Your task to perform on an android device: allow notifications from all sites in the chrome app Image 0: 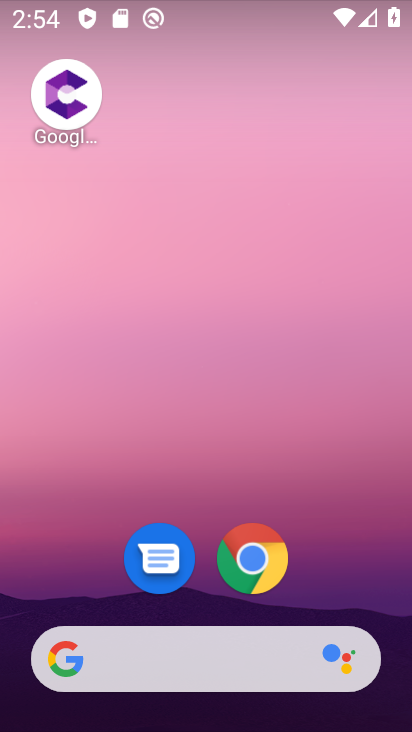
Step 0: click (258, 553)
Your task to perform on an android device: allow notifications from all sites in the chrome app Image 1: 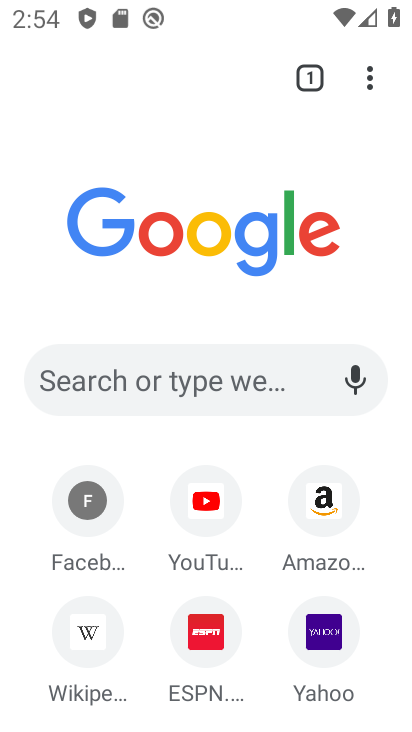
Step 1: click (365, 79)
Your task to perform on an android device: allow notifications from all sites in the chrome app Image 2: 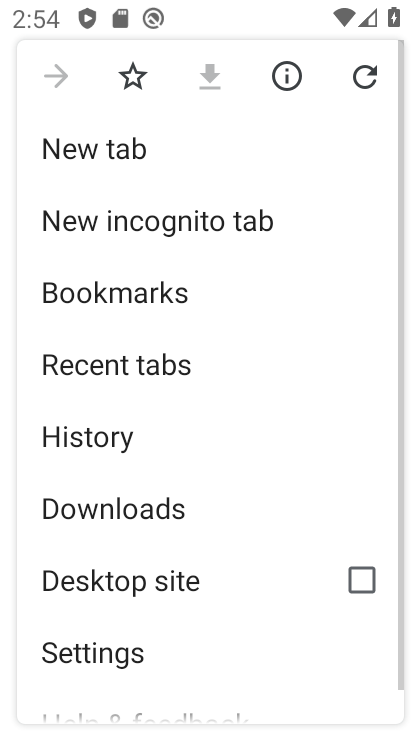
Step 2: drag from (206, 541) to (198, 173)
Your task to perform on an android device: allow notifications from all sites in the chrome app Image 3: 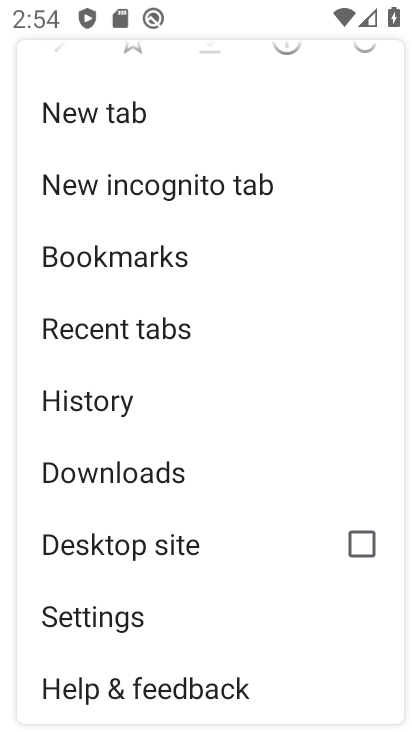
Step 3: click (96, 612)
Your task to perform on an android device: allow notifications from all sites in the chrome app Image 4: 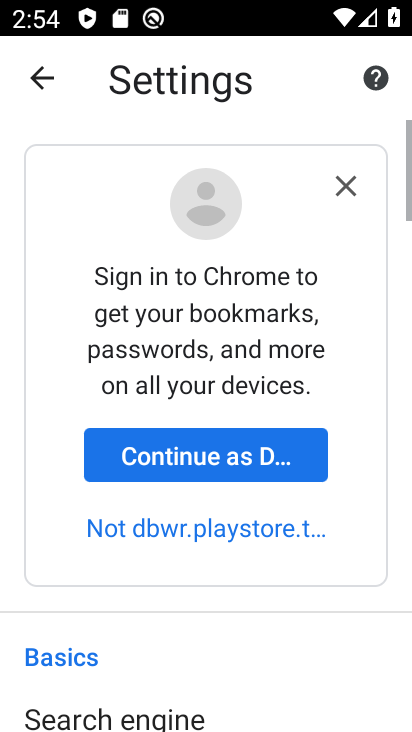
Step 4: drag from (188, 614) to (186, 127)
Your task to perform on an android device: allow notifications from all sites in the chrome app Image 5: 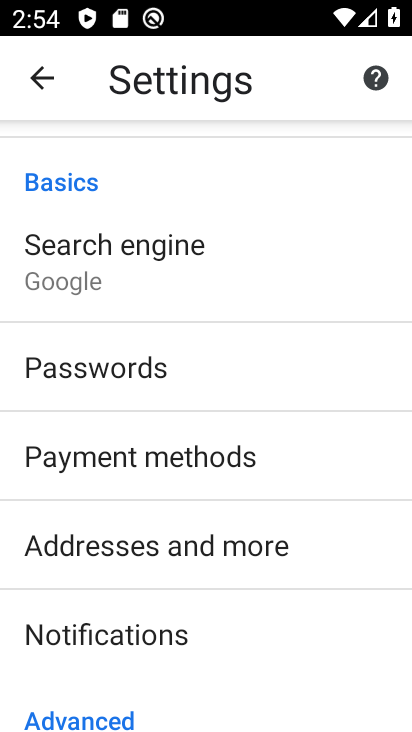
Step 5: drag from (241, 505) to (228, 213)
Your task to perform on an android device: allow notifications from all sites in the chrome app Image 6: 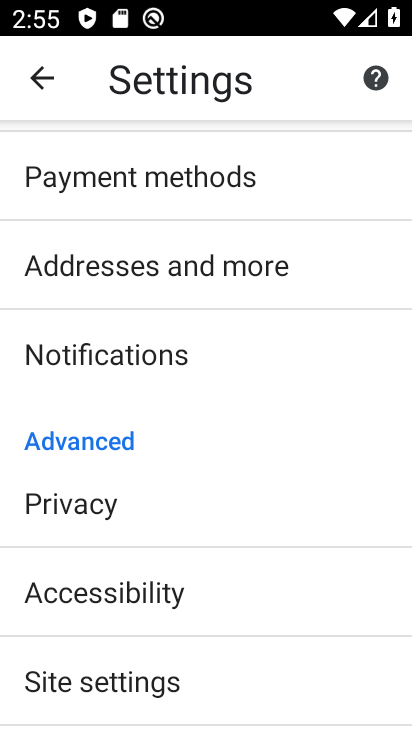
Step 6: drag from (220, 618) to (218, 352)
Your task to perform on an android device: allow notifications from all sites in the chrome app Image 7: 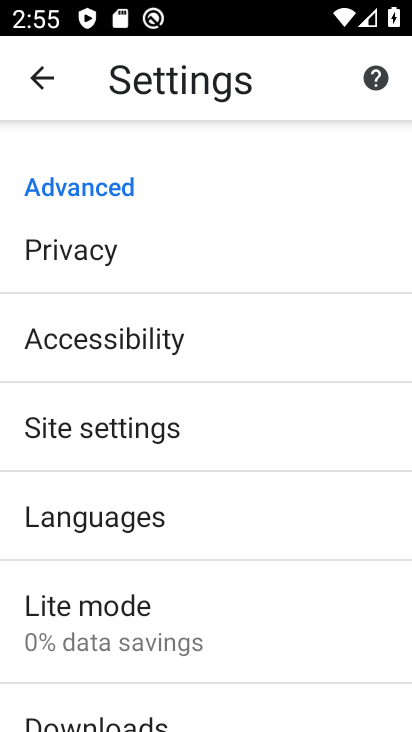
Step 7: click (127, 432)
Your task to perform on an android device: allow notifications from all sites in the chrome app Image 8: 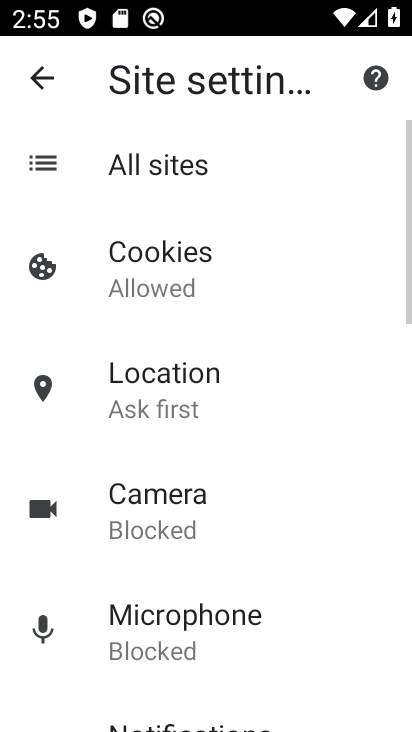
Step 8: drag from (250, 594) to (260, 262)
Your task to perform on an android device: allow notifications from all sites in the chrome app Image 9: 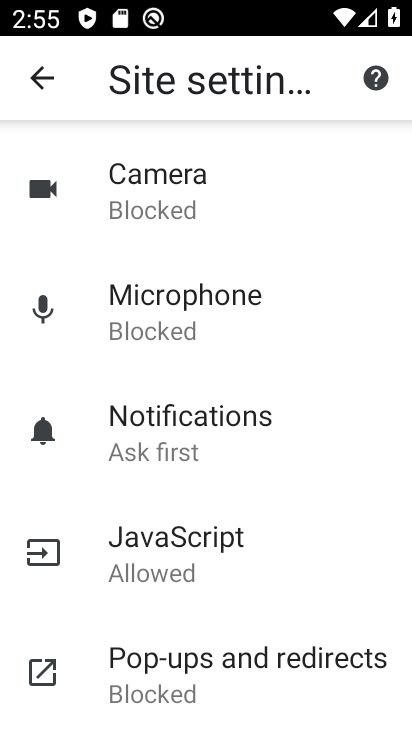
Step 9: click (154, 440)
Your task to perform on an android device: allow notifications from all sites in the chrome app Image 10: 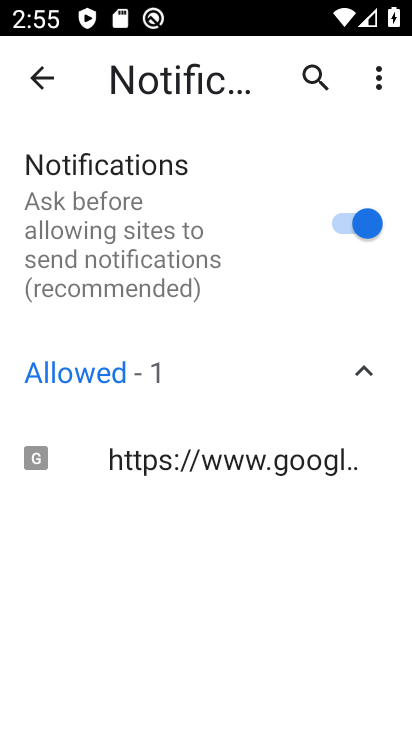
Step 10: task complete